Your task to perform on an android device: Open Google Chrome Image 0: 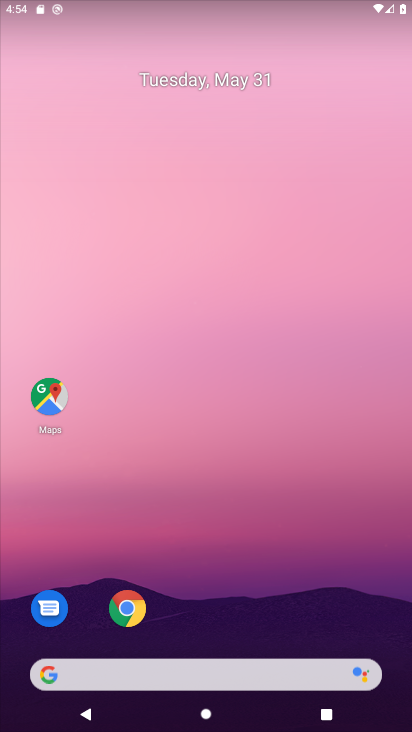
Step 0: click (124, 605)
Your task to perform on an android device: Open Google Chrome Image 1: 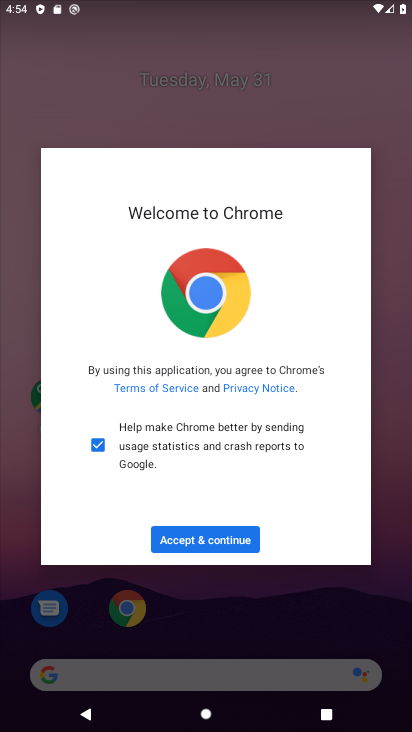
Step 1: click (204, 533)
Your task to perform on an android device: Open Google Chrome Image 2: 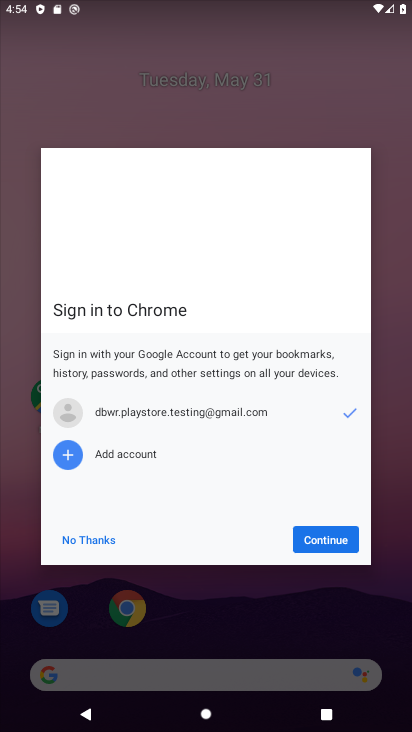
Step 2: click (332, 536)
Your task to perform on an android device: Open Google Chrome Image 3: 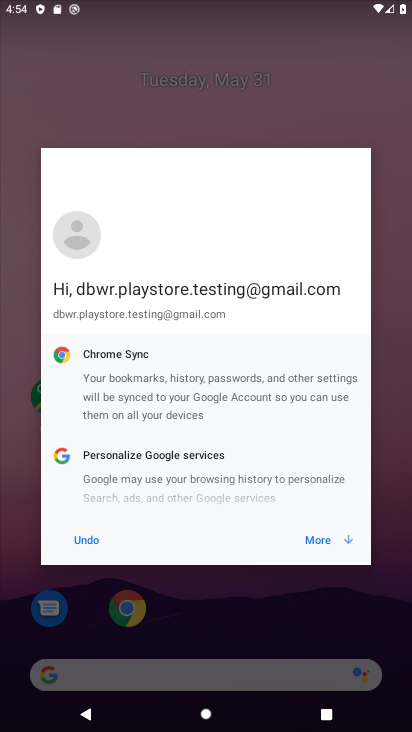
Step 3: click (332, 536)
Your task to perform on an android device: Open Google Chrome Image 4: 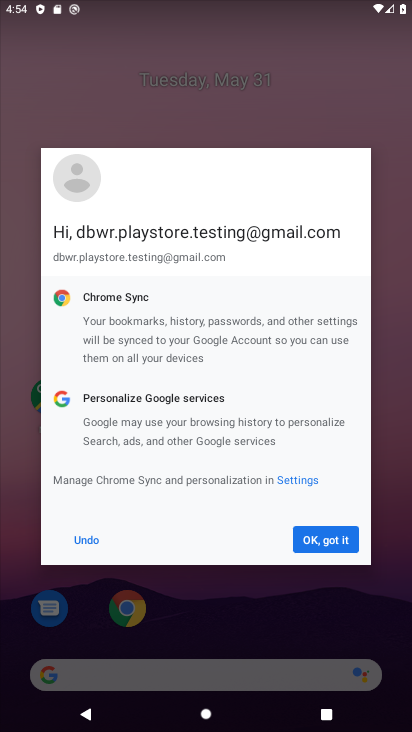
Step 4: click (332, 536)
Your task to perform on an android device: Open Google Chrome Image 5: 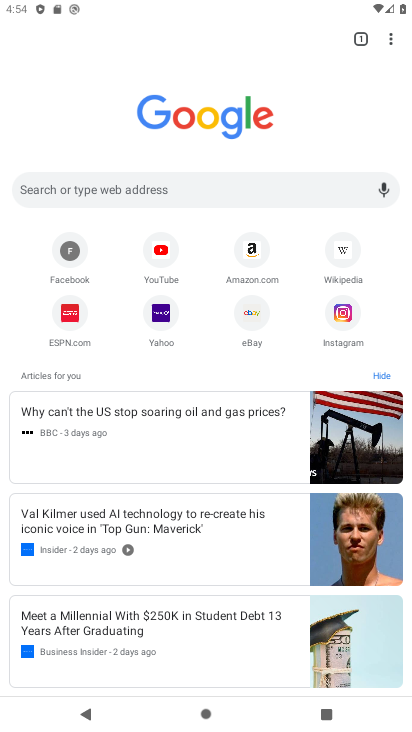
Step 5: task complete